Your task to perform on an android device: Go to sound settings Image 0: 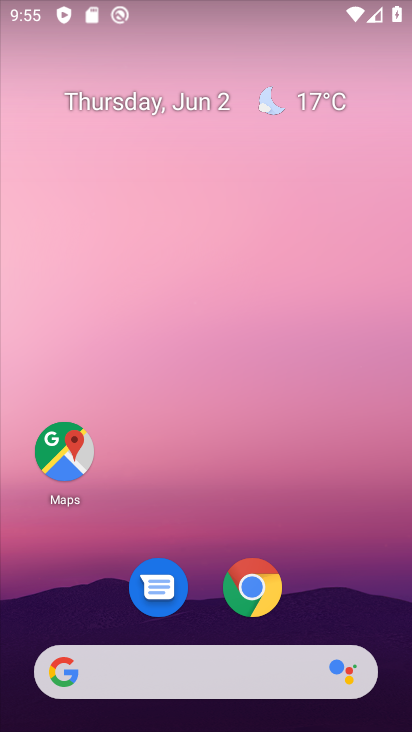
Step 0: press home button
Your task to perform on an android device: Go to sound settings Image 1: 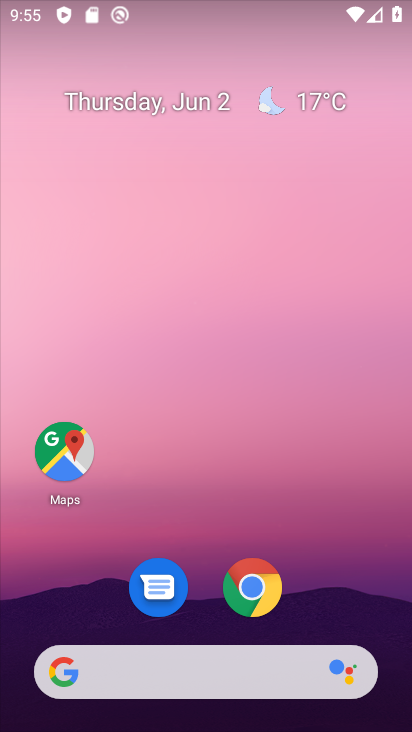
Step 1: drag from (211, 618) to (224, 100)
Your task to perform on an android device: Go to sound settings Image 2: 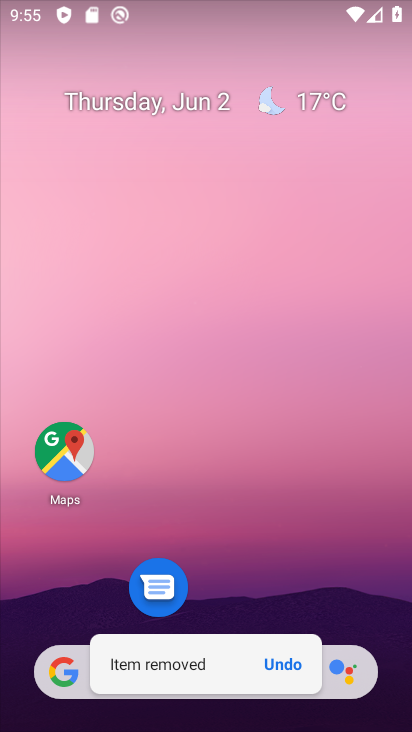
Step 2: click (296, 666)
Your task to perform on an android device: Go to sound settings Image 3: 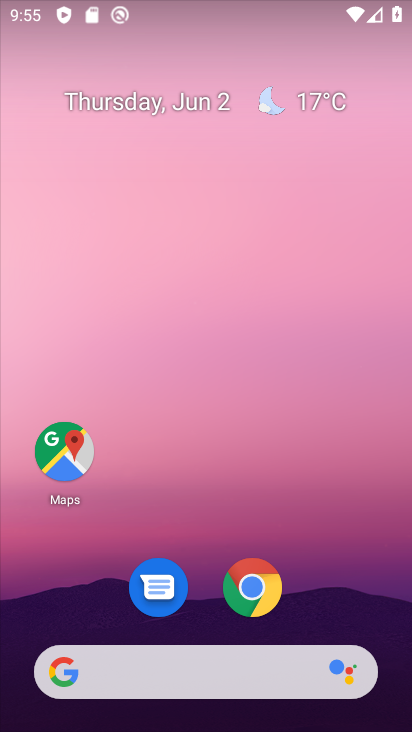
Step 3: drag from (336, 613) to (340, 92)
Your task to perform on an android device: Go to sound settings Image 4: 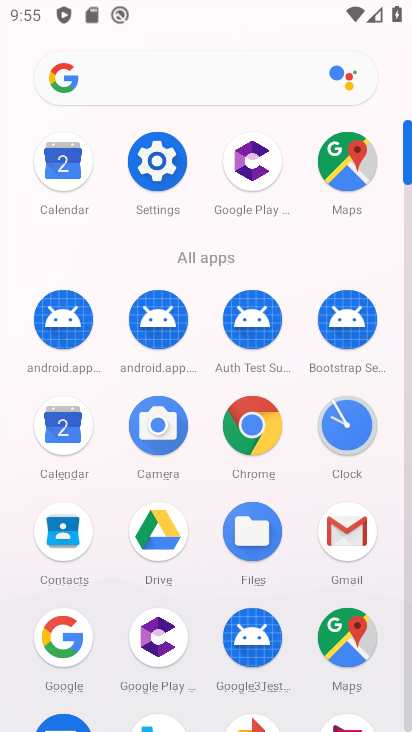
Step 4: click (153, 155)
Your task to perform on an android device: Go to sound settings Image 5: 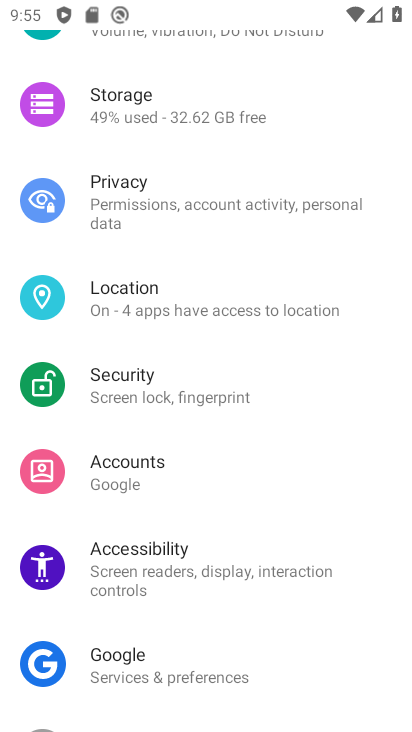
Step 5: drag from (207, 149) to (207, 551)
Your task to perform on an android device: Go to sound settings Image 6: 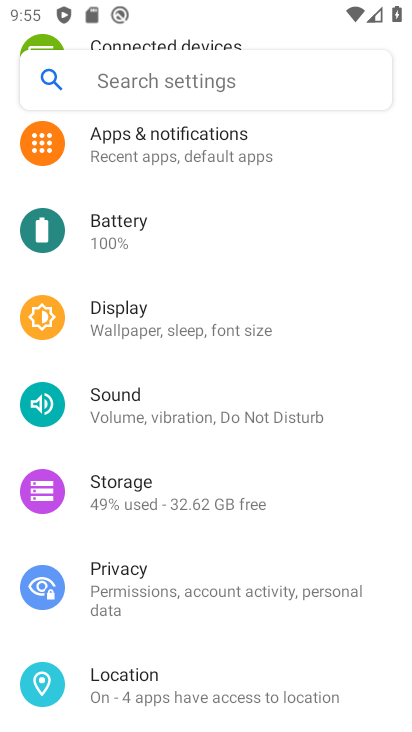
Step 6: click (174, 401)
Your task to perform on an android device: Go to sound settings Image 7: 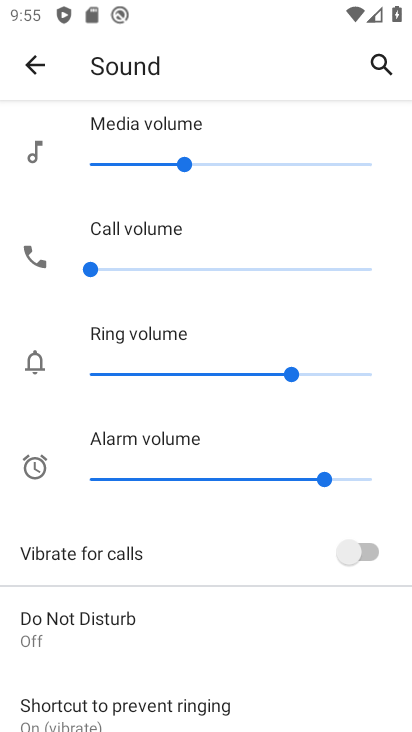
Step 7: drag from (198, 656) to (220, 337)
Your task to perform on an android device: Go to sound settings Image 8: 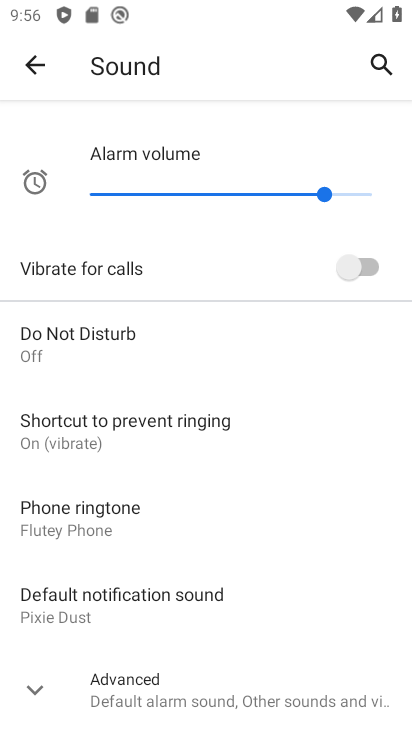
Step 8: click (36, 685)
Your task to perform on an android device: Go to sound settings Image 9: 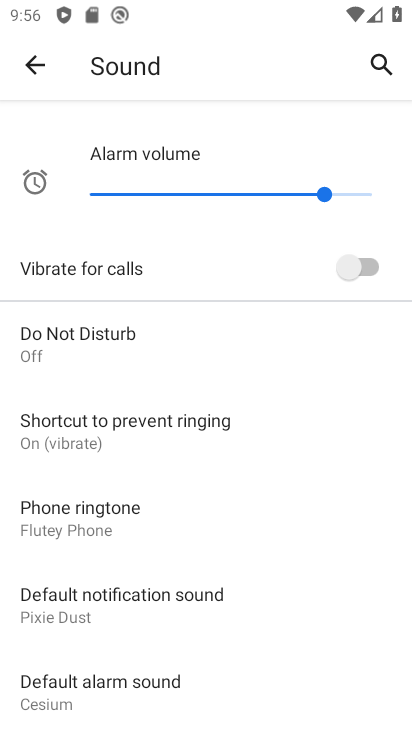
Step 9: task complete